Your task to perform on an android device: Open Yahoo.com Image 0: 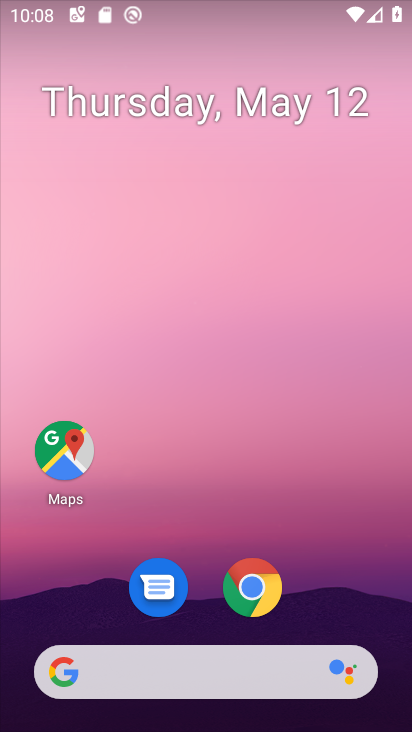
Step 0: click (241, 569)
Your task to perform on an android device: Open Yahoo.com Image 1: 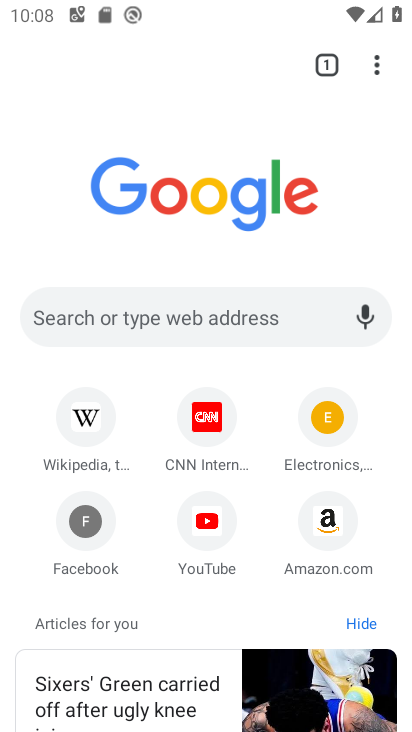
Step 1: click (217, 314)
Your task to perform on an android device: Open Yahoo.com Image 2: 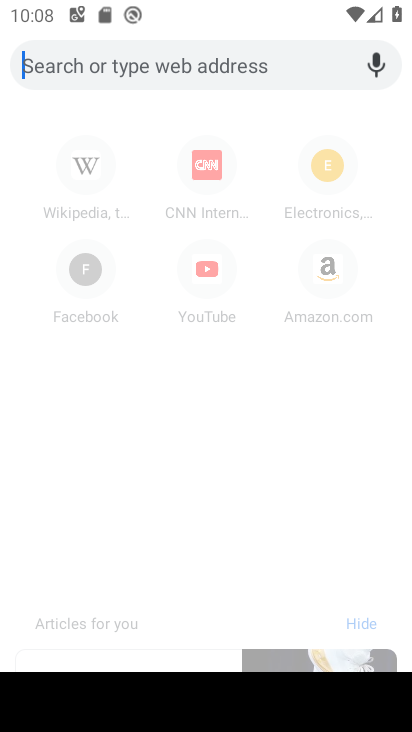
Step 2: type "yahoo.com"
Your task to perform on an android device: Open Yahoo.com Image 3: 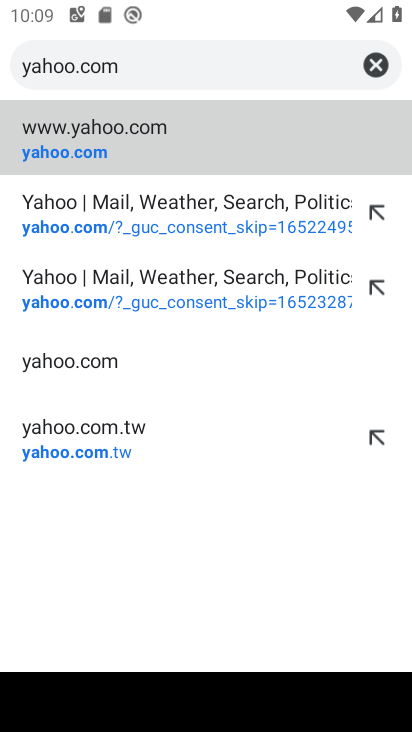
Step 3: click (266, 128)
Your task to perform on an android device: Open Yahoo.com Image 4: 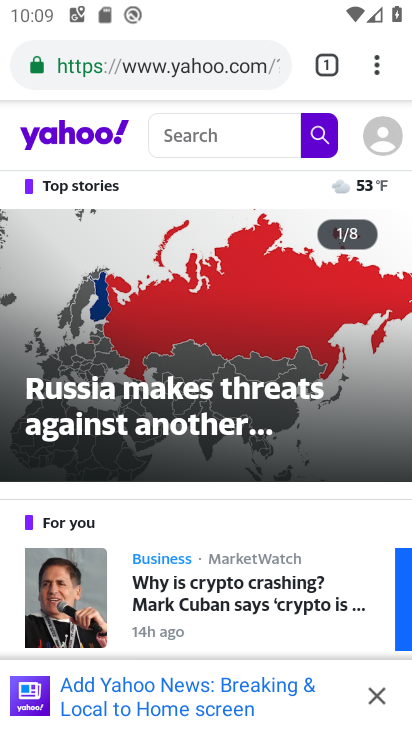
Step 4: task complete